Your task to perform on an android device: What are the best selling refrigerators at Lowes? Image 0: 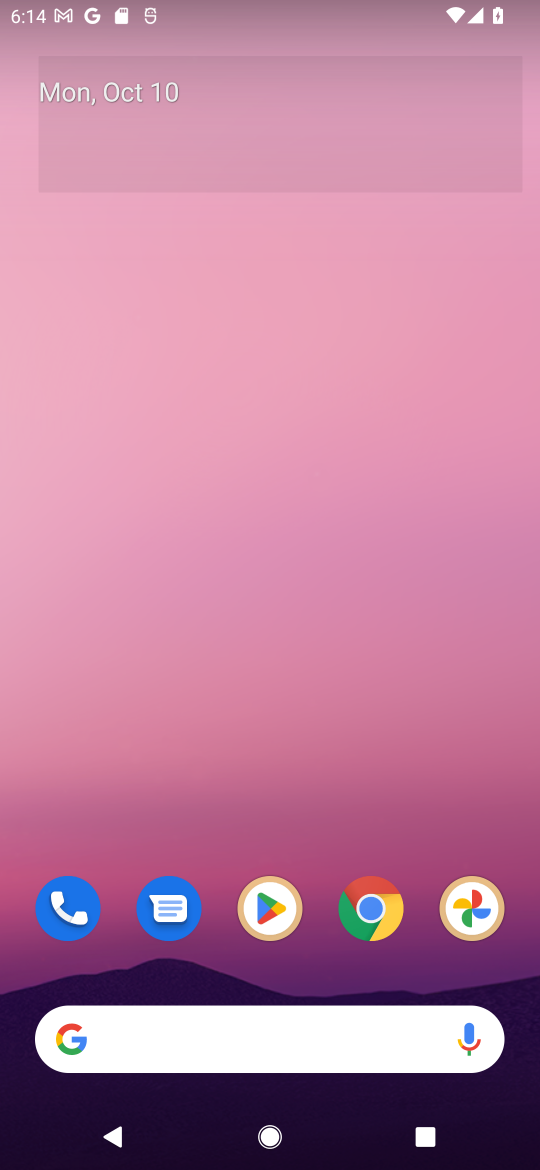
Step 0: drag from (318, 976) to (281, 167)
Your task to perform on an android device: What are the best selling refrigerators at Lowes? Image 1: 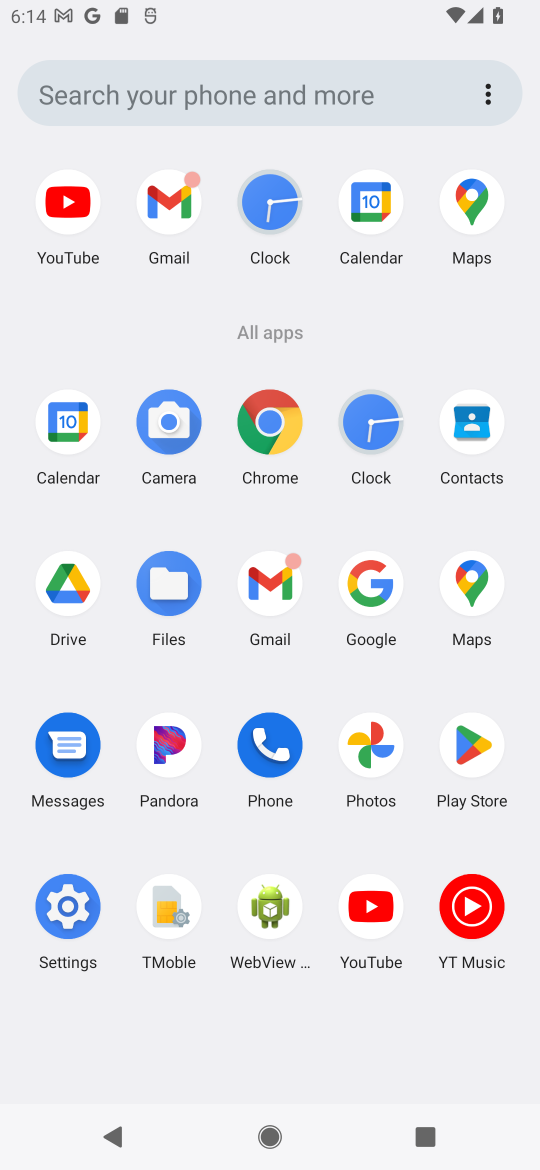
Step 1: click (271, 416)
Your task to perform on an android device: What are the best selling refrigerators at Lowes? Image 2: 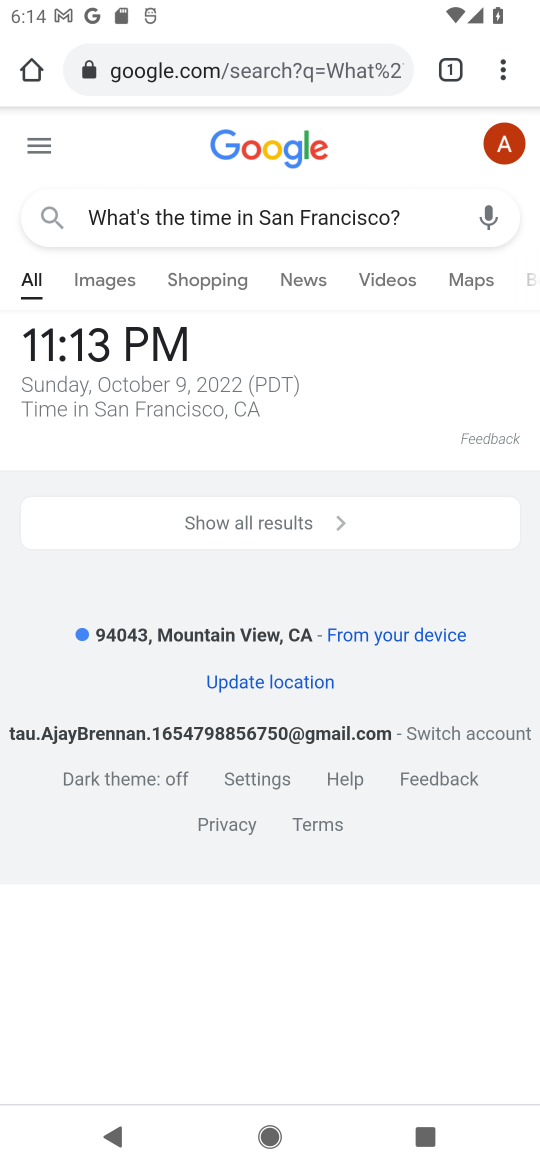
Step 2: click (326, 72)
Your task to perform on an android device: What are the best selling refrigerators at Lowes? Image 3: 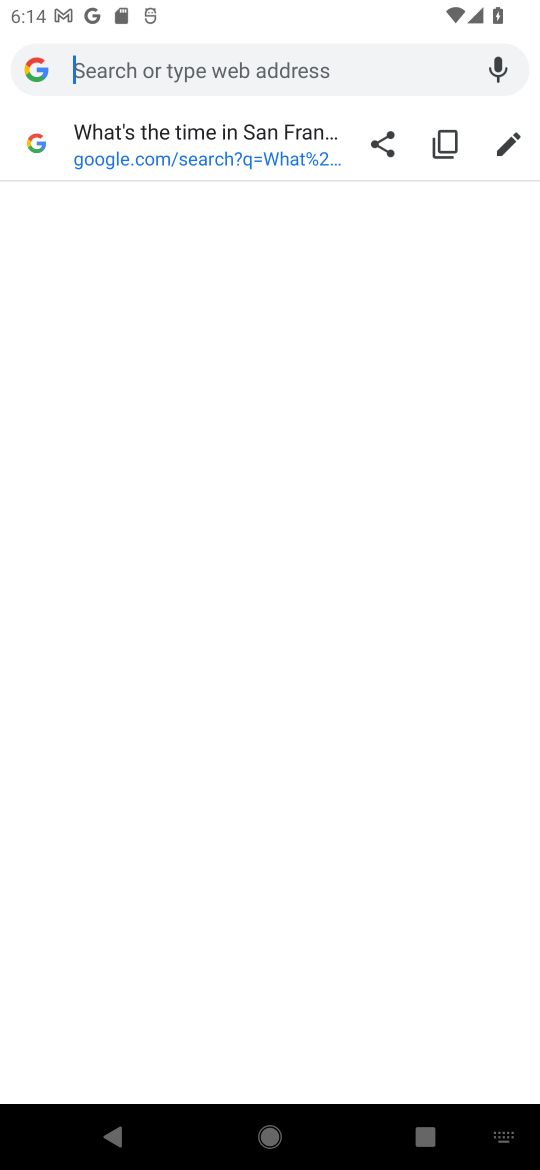
Step 3: type "best selling refrigerators at Lowes?"
Your task to perform on an android device: What are the best selling refrigerators at Lowes? Image 4: 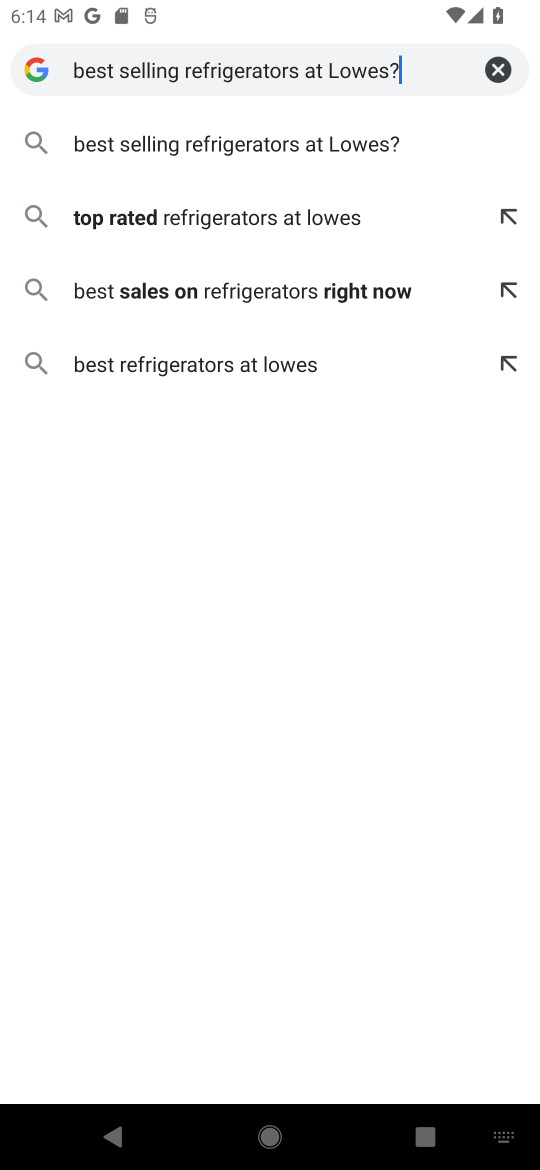
Step 4: press enter
Your task to perform on an android device: What are the best selling refrigerators at Lowes? Image 5: 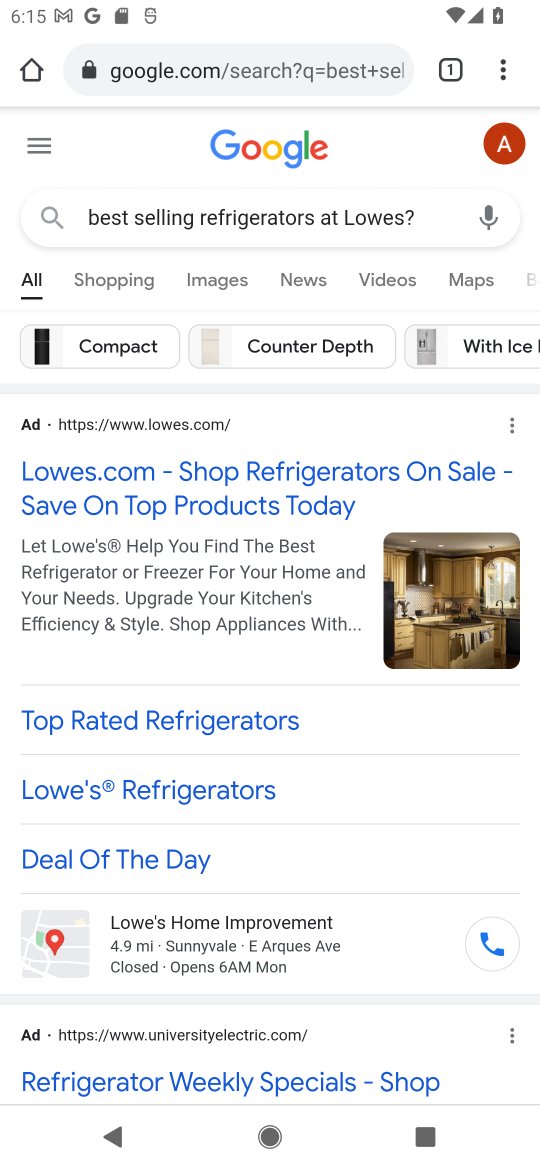
Step 5: drag from (258, 884) to (299, 158)
Your task to perform on an android device: What are the best selling refrigerators at Lowes? Image 6: 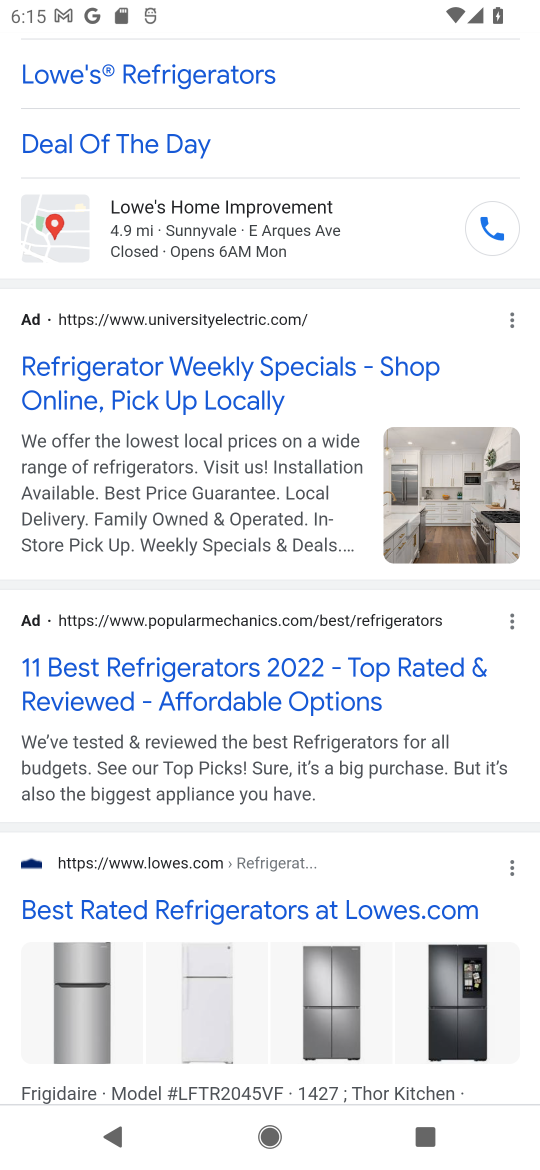
Step 6: drag from (250, 835) to (274, 259)
Your task to perform on an android device: What are the best selling refrigerators at Lowes? Image 7: 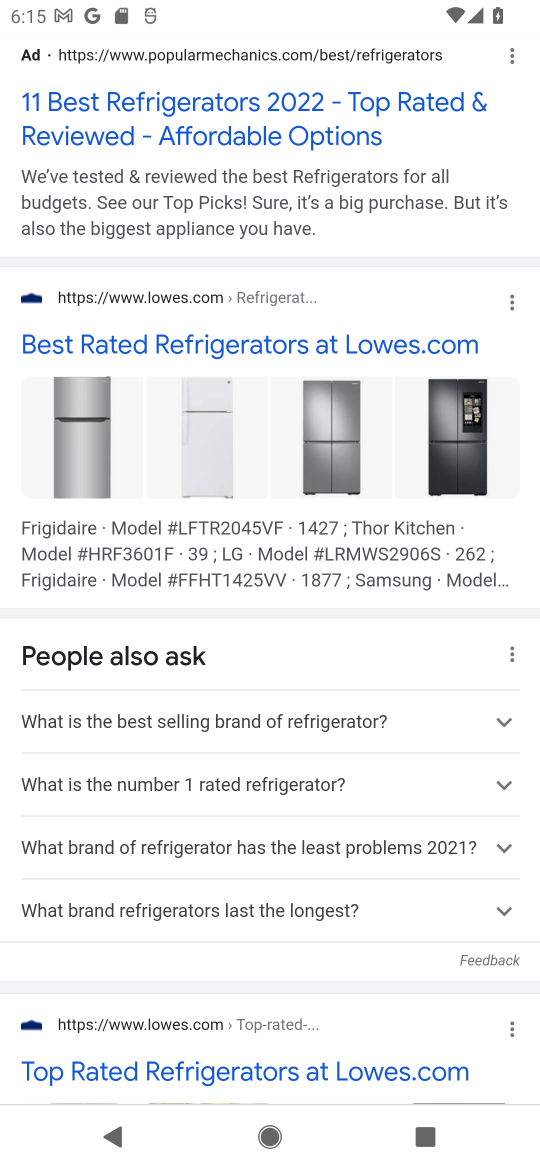
Step 7: click (173, 347)
Your task to perform on an android device: What are the best selling refrigerators at Lowes? Image 8: 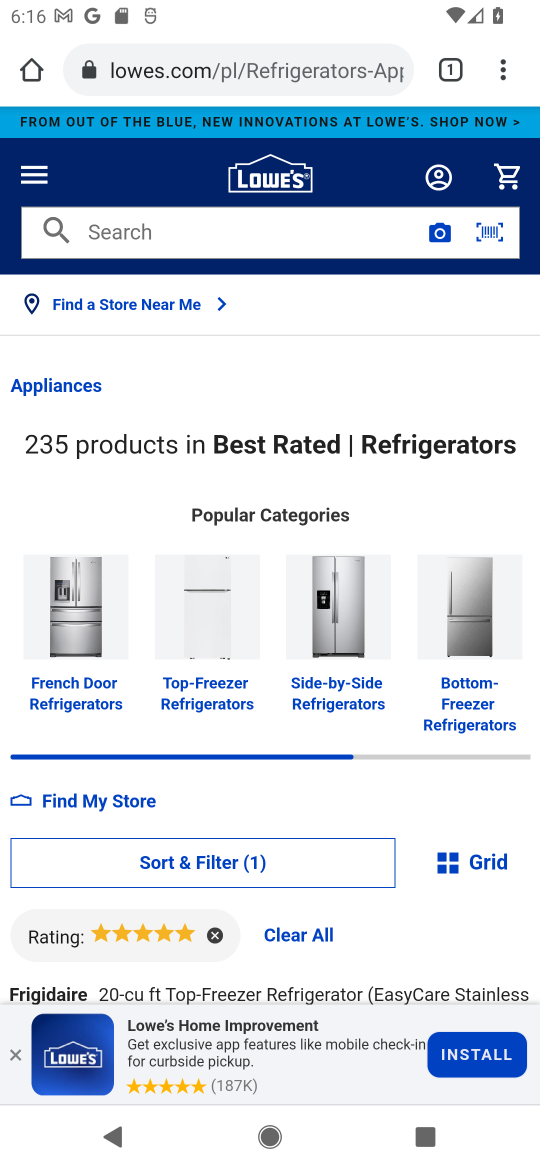
Step 8: task complete